Your task to perform on an android device: turn on sleep mode Image 0: 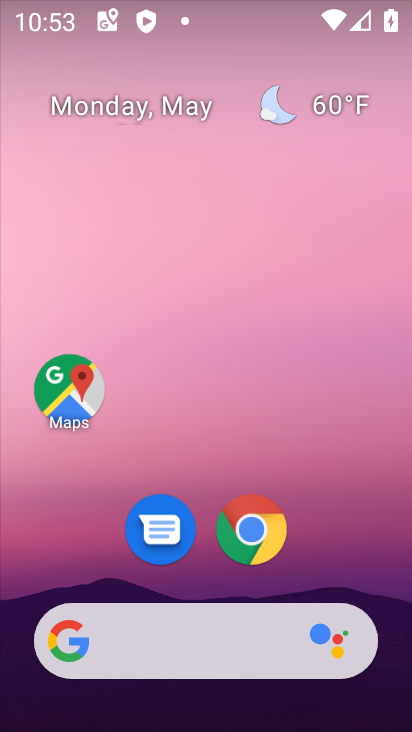
Step 0: drag from (289, 462) to (234, 8)
Your task to perform on an android device: turn on sleep mode Image 1: 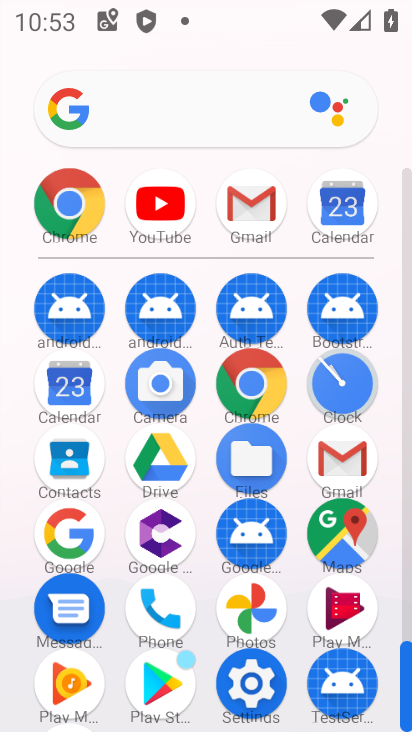
Step 1: click (250, 674)
Your task to perform on an android device: turn on sleep mode Image 2: 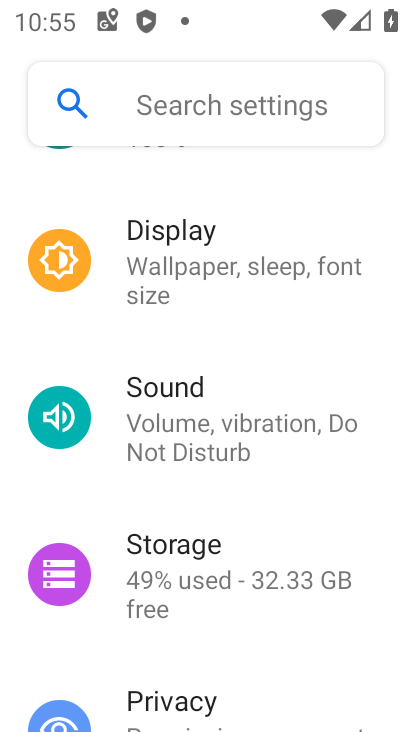
Step 2: click (166, 237)
Your task to perform on an android device: turn on sleep mode Image 3: 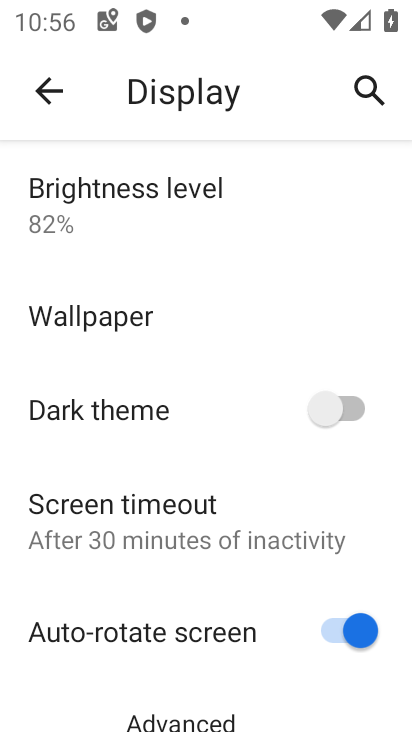
Step 3: click (156, 43)
Your task to perform on an android device: turn on sleep mode Image 4: 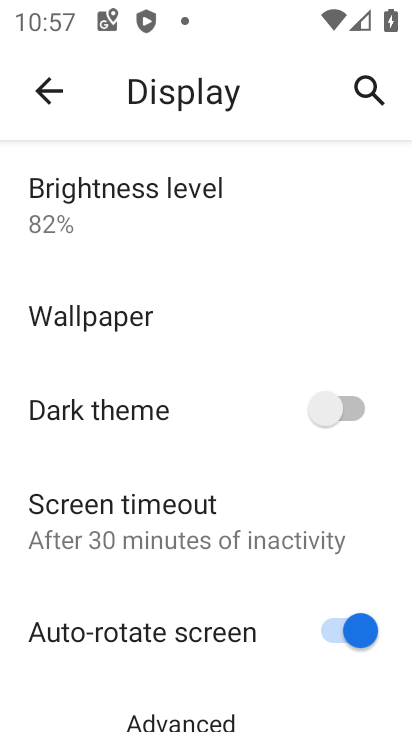
Step 4: task complete